Your task to perform on an android device: toggle airplane mode Image 0: 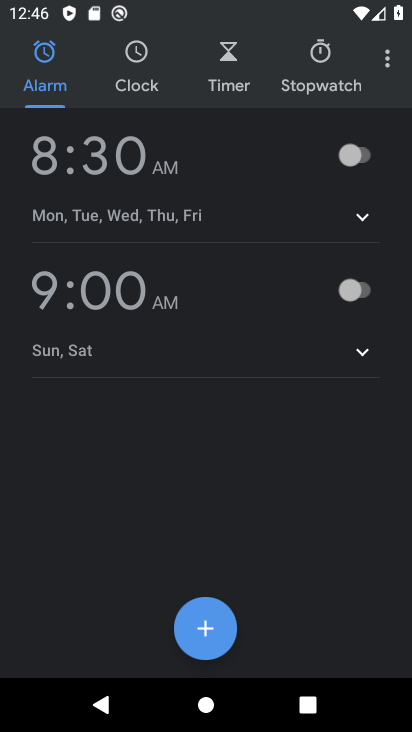
Step 0: press home button
Your task to perform on an android device: toggle airplane mode Image 1: 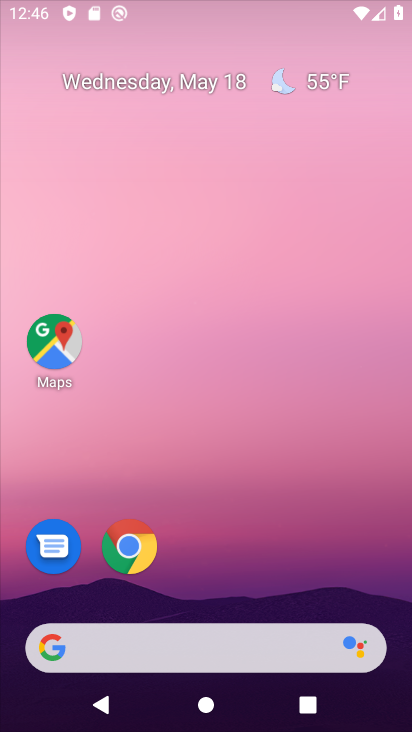
Step 1: drag from (365, 572) to (383, 234)
Your task to perform on an android device: toggle airplane mode Image 2: 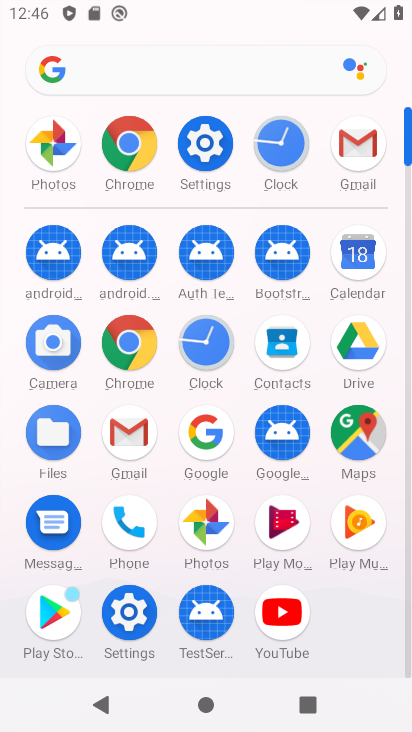
Step 2: click (202, 163)
Your task to perform on an android device: toggle airplane mode Image 3: 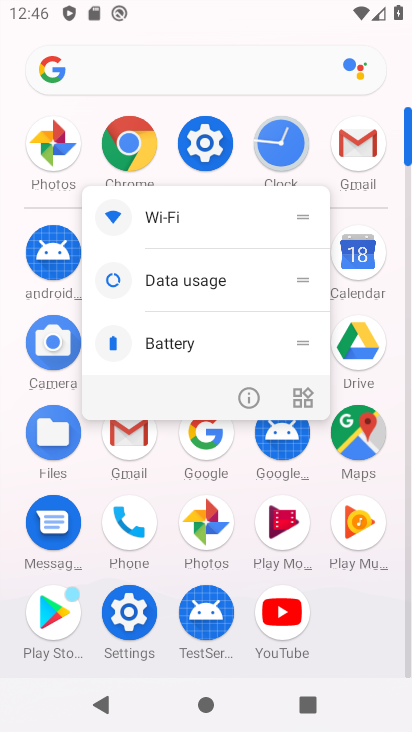
Step 3: click (206, 154)
Your task to perform on an android device: toggle airplane mode Image 4: 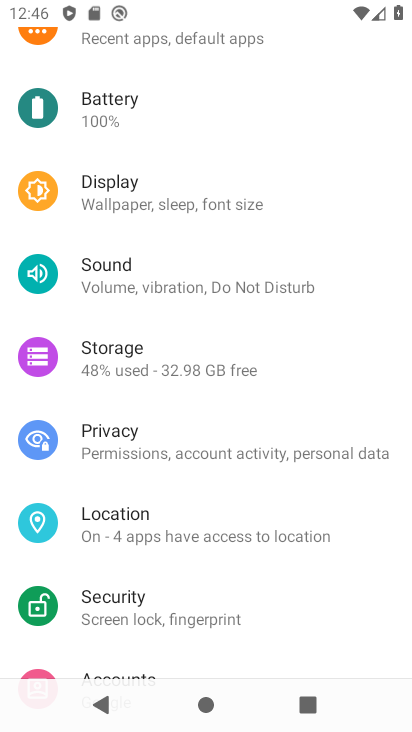
Step 4: drag from (279, 153) to (299, 610)
Your task to perform on an android device: toggle airplane mode Image 5: 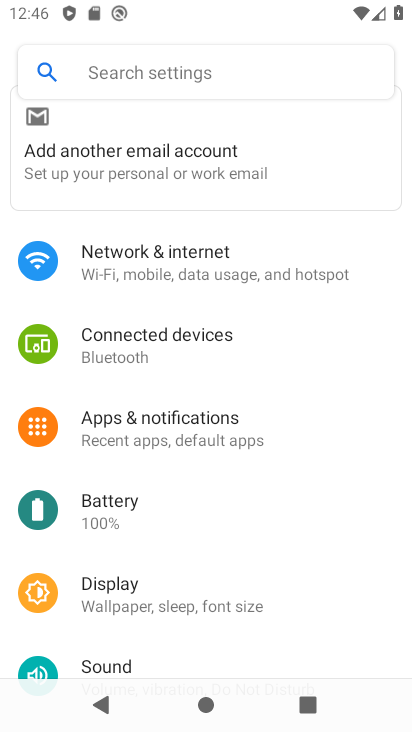
Step 5: click (270, 264)
Your task to perform on an android device: toggle airplane mode Image 6: 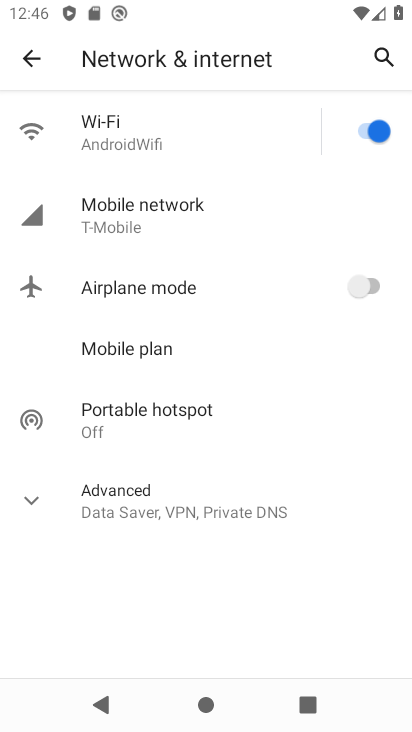
Step 6: click (378, 289)
Your task to perform on an android device: toggle airplane mode Image 7: 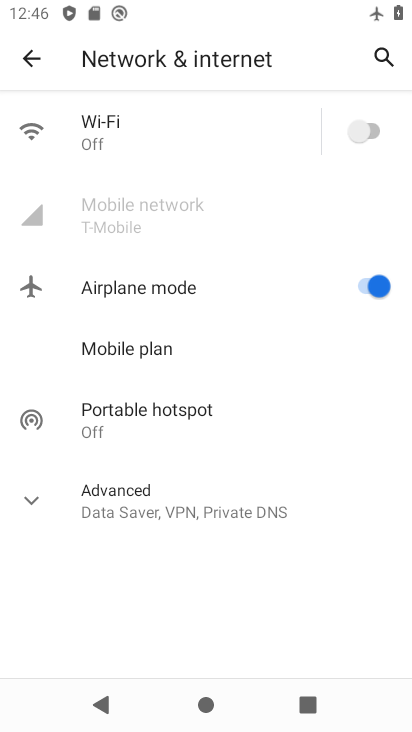
Step 7: task complete